Your task to perform on an android device: change notification settings in the gmail app Image 0: 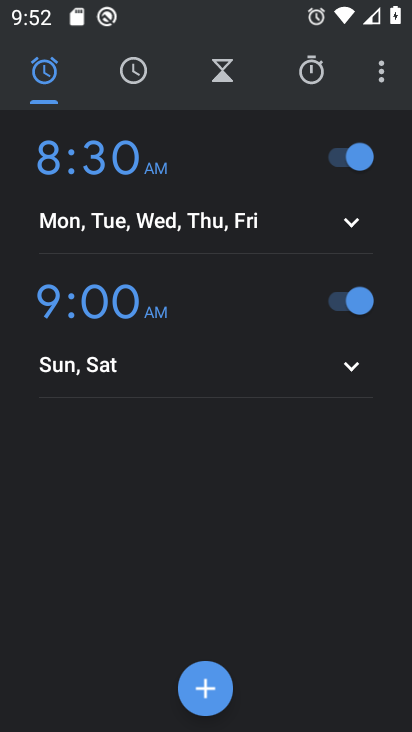
Step 0: press home button
Your task to perform on an android device: change notification settings in the gmail app Image 1: 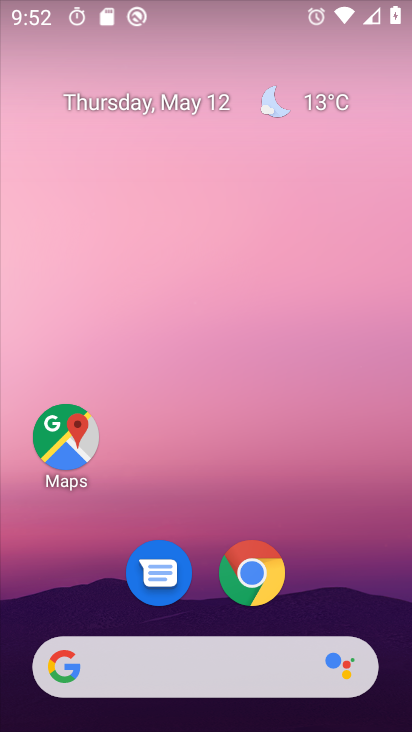
Step 1: drag from (383, 450) to (372, 321)
Your task to perform on an android device: change notification settings in the gmail app Image 2: 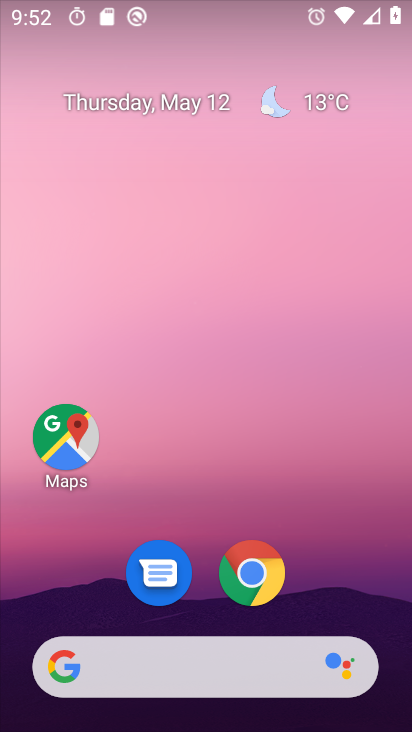
Step 2: drag from (394, 433) to (394, 349)
Your task to perform on an android device: change notification settings in the gmail app Image 3: 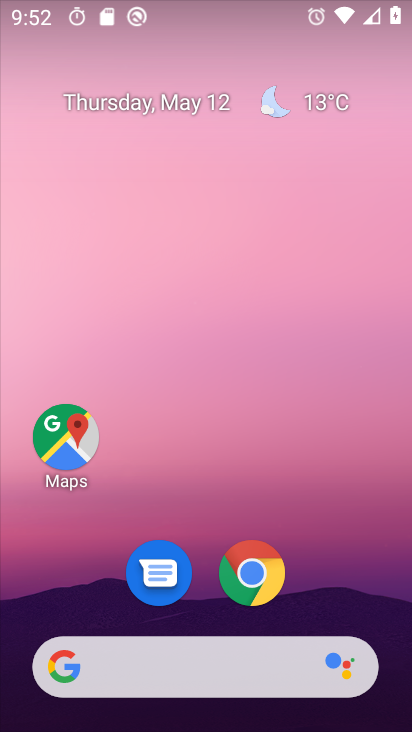
Step 3: drag from (405, 647) to (391, 358)
Your task to perform on an android device: change notification settings in the gmail app Image 4: 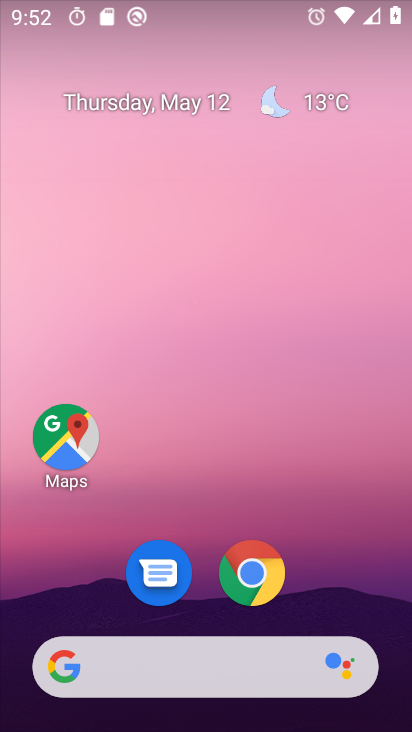
Step 4: drag from (401, 688) to (400, 447)
Your task to perform on an android device: change notification settings in the gmail app Image 5: 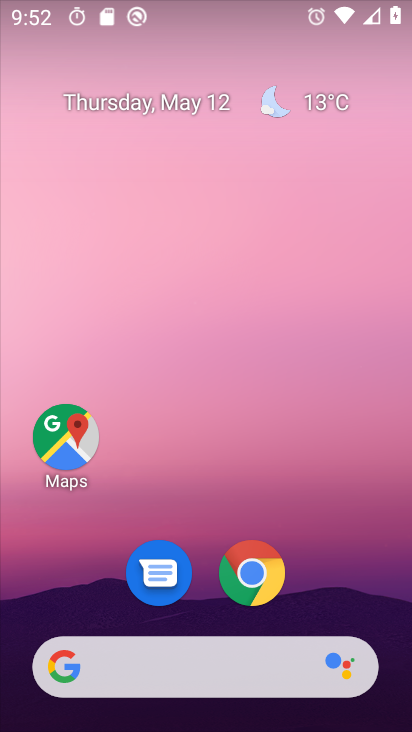
Step 5: drag from (393, 682) to (370, 277)
Your task to perform on an android device: change notification settings in the gmail app Image 6: 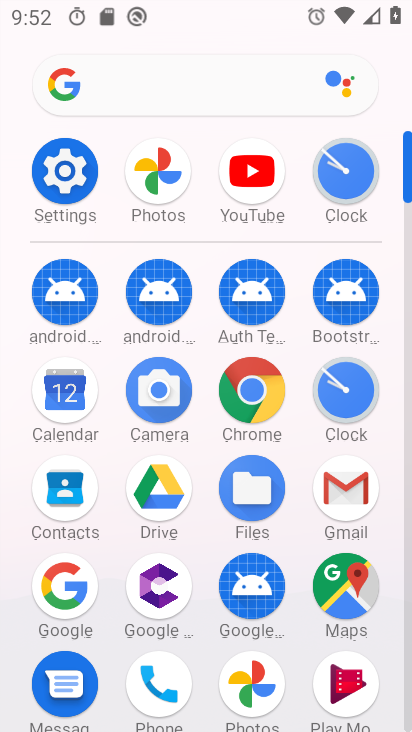
Step 6: click (327, 500)
Your task to perform on an android device: change notification settings in the gmail app Image 7: 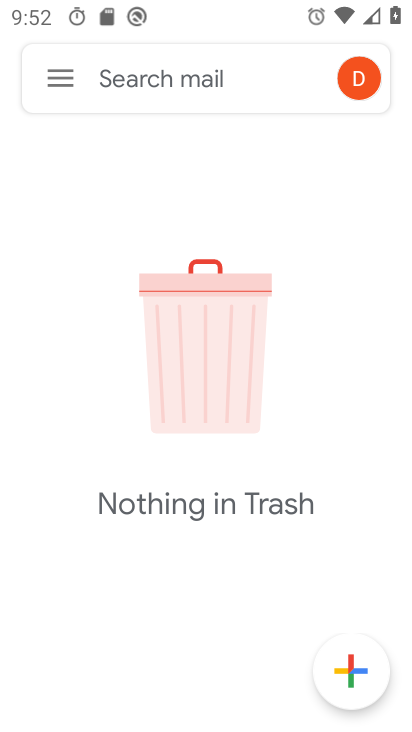
Step 7: click (64, 69)
Your task to perform on an android device: change notification settings in the gmail app Image 8: 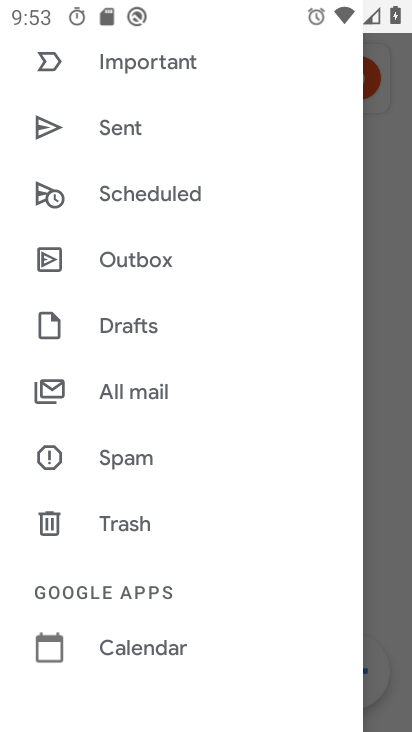
Step 8: drag from (227, 653) to (256, 360)
Your task to perform on an android device: change notification settings in the gmail app Image 9: 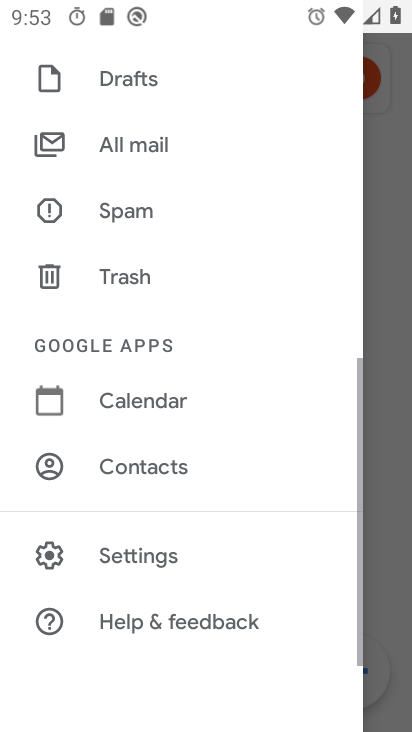
Step 9: click (155, 568)
Your task to perform on an android device: change notification settings in the gmail app Image 10: 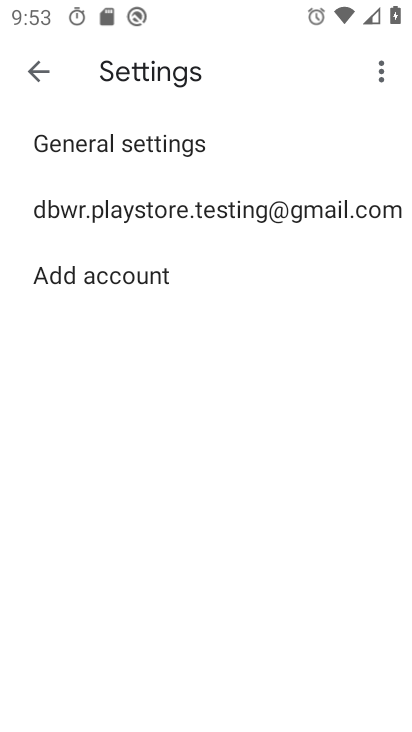
Step 10: click (114, 144)
Your task to perform on an android device: change notification settings in the gmail app Image 11: 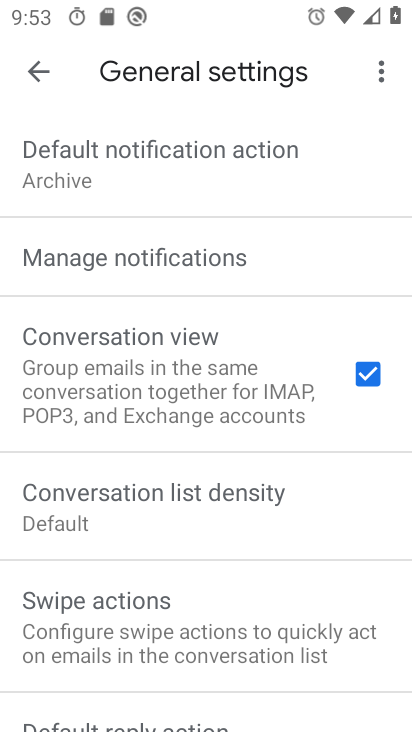
Step 11: click (104, 254)
Your task to perform on an android device: change notification settings in the gmail app Image 12: 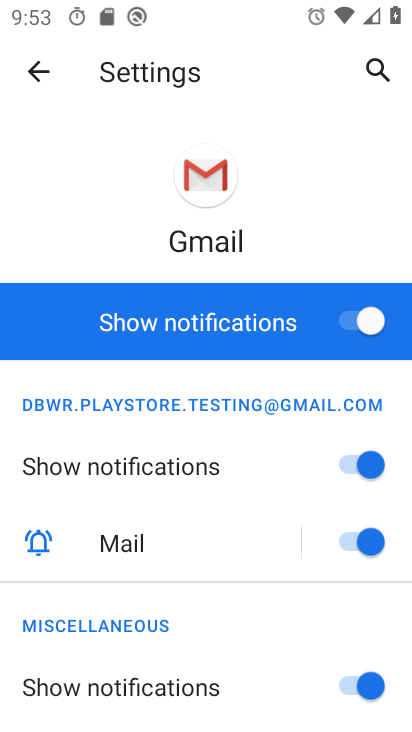
Step 12: click (352, 325)
Your task to perform on an android device: change notification settings in the gmail app Image 13: 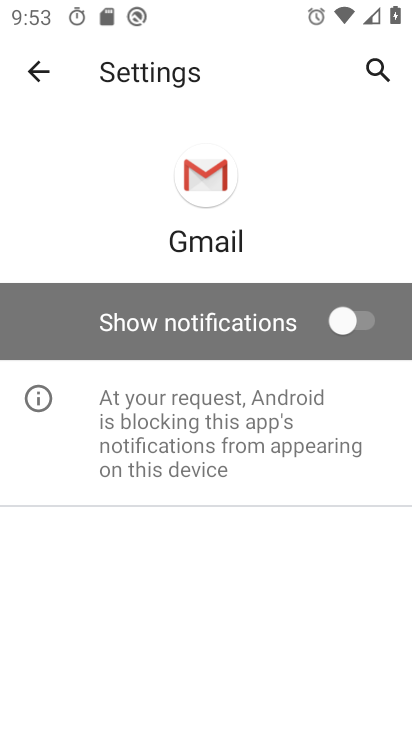
Step 13: task complete